Your task to perform on an android device: Go to ESPN.com Image 0: 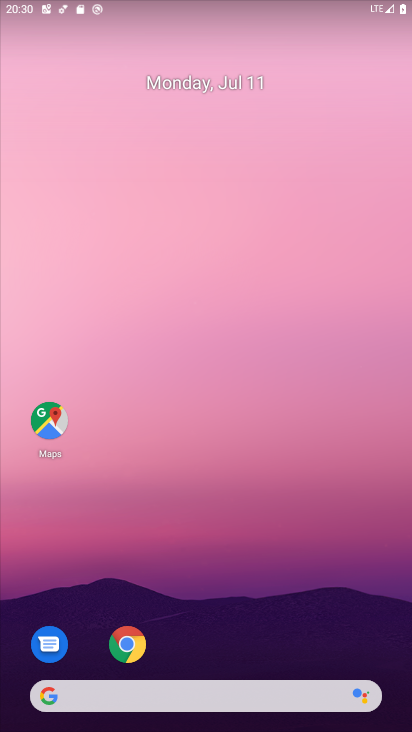
Step 0: drag from (233, 619) to (263, 110)
Your task to perform on an android device: Go to ESPN.com Image 1: 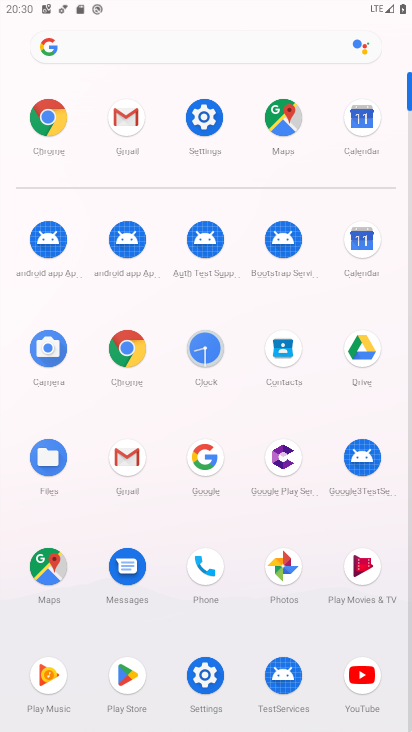
Step 1: click (56, 120)
Your task to perform on an android device: Go to ESPN.com Image 2: 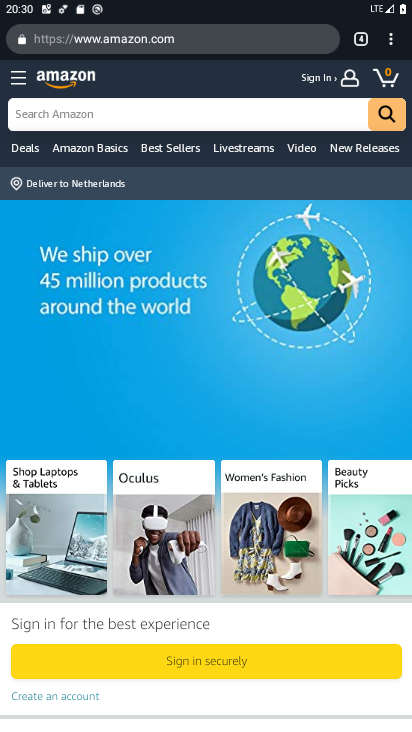
Step 2: click (386, 32)
Your task to perform on an android device: Go to ESPN.com Image 3: 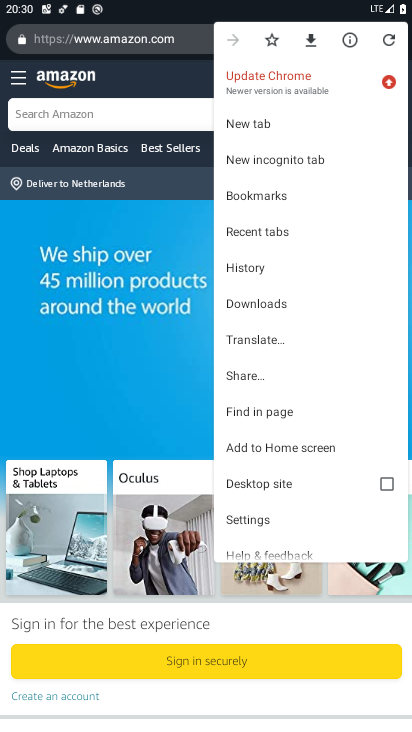
Step 3: click (271, 128)
Your task to perform on an android device: Go to ESPN.com Image 4: 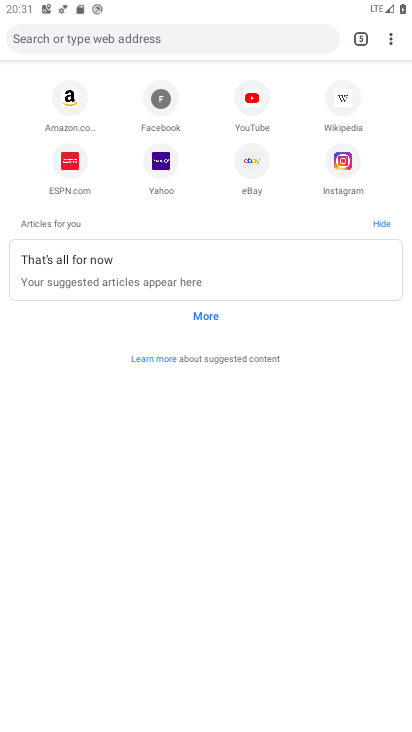
Step 4: click (67, 164)
Your task to perform on an android device: Go to ESPN.com Image 5: 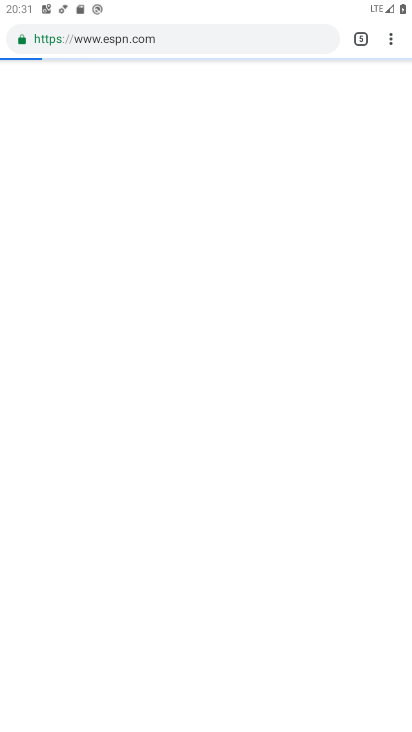
Step 5: task complete